Your task to perform on an android device: turn vacation reply on in the gmail app Image 0: 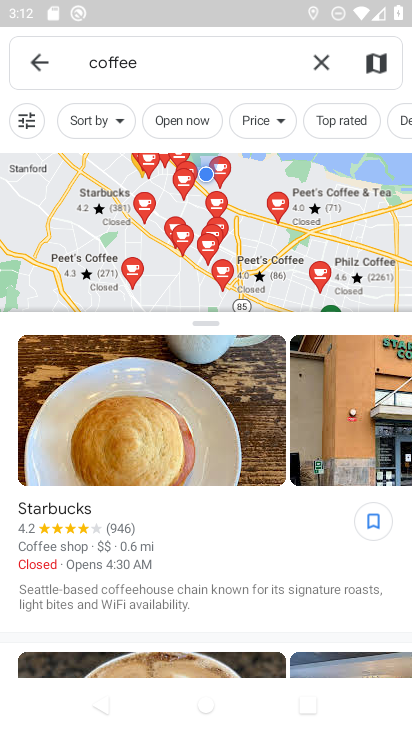
Step 0: press home button
Your task to perform on an android device: turn vacation reply on in the gmail app Image 1: 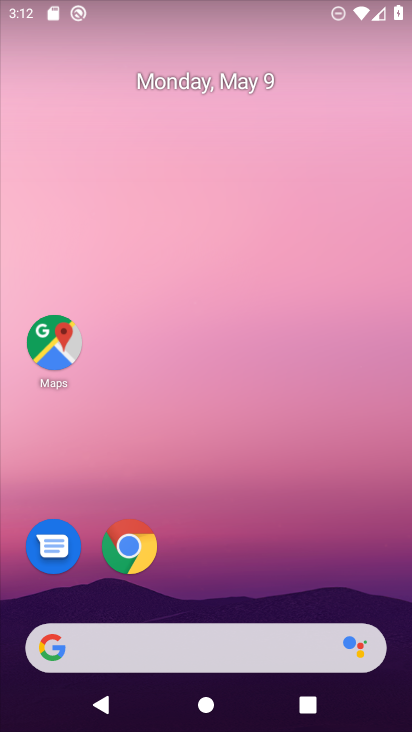
Step 1: drag from (199, 533) to (280, 123)
Your task to perform on an android device: turn vacation reply on in the gmail app Image 2: 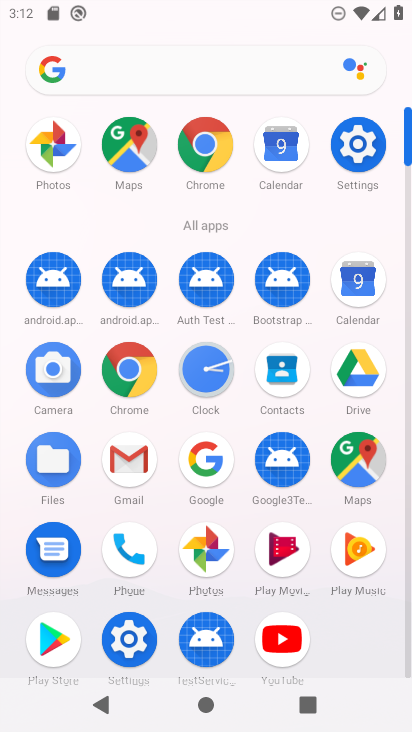
Step 2: click (138, 446)
Your task to perform on an android device: turn vacation reply on in the gmail app Image 3: 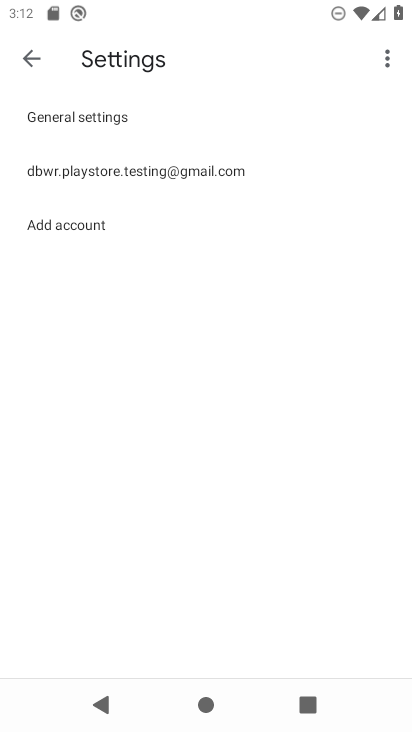
Step 3: click (147, 165)
Your task to perform on an android device: turn vacation reply on in the gmail app Image 4: 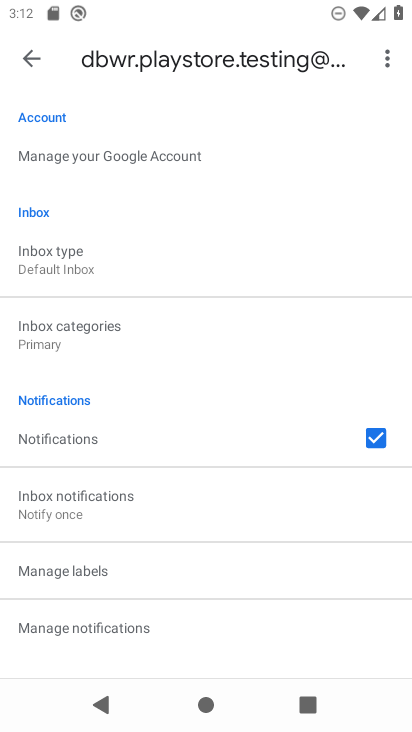
Step 4: drag from (114, 552) to (205, 261)
Your task to perform on an android device: turn vacation reply on in the gmail app Image 5: 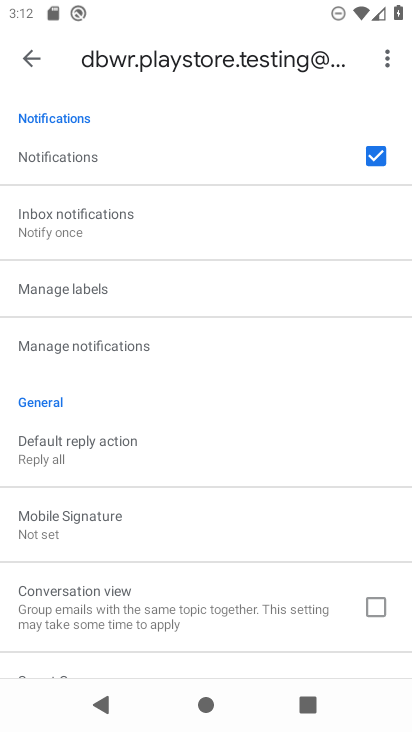
Step 5: drag from (127, 539) to (206, 223)
Your task to perform on an android device: turn vacation reply on in the gmail app Image 6: 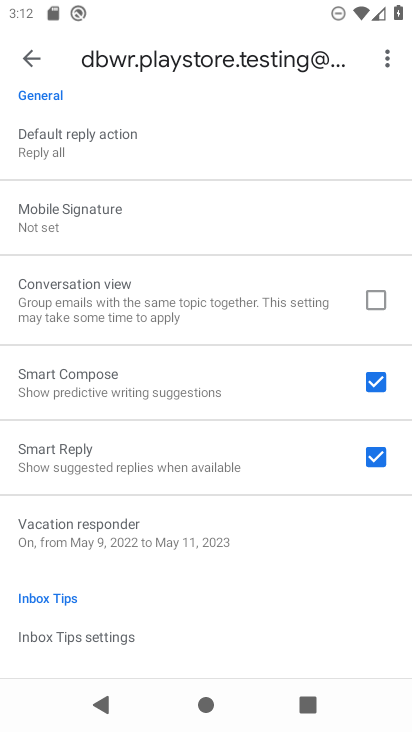
Step 6: click (148, 523)
Your task to perform on an android device: turn vacation reply on in the gmail app Image 7: 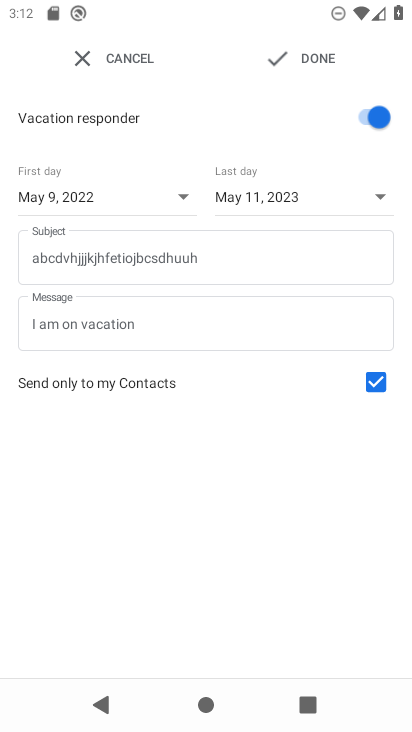
Step 7: task complete